Your task to perform on an android device: open chrome privacy settings Image 0: 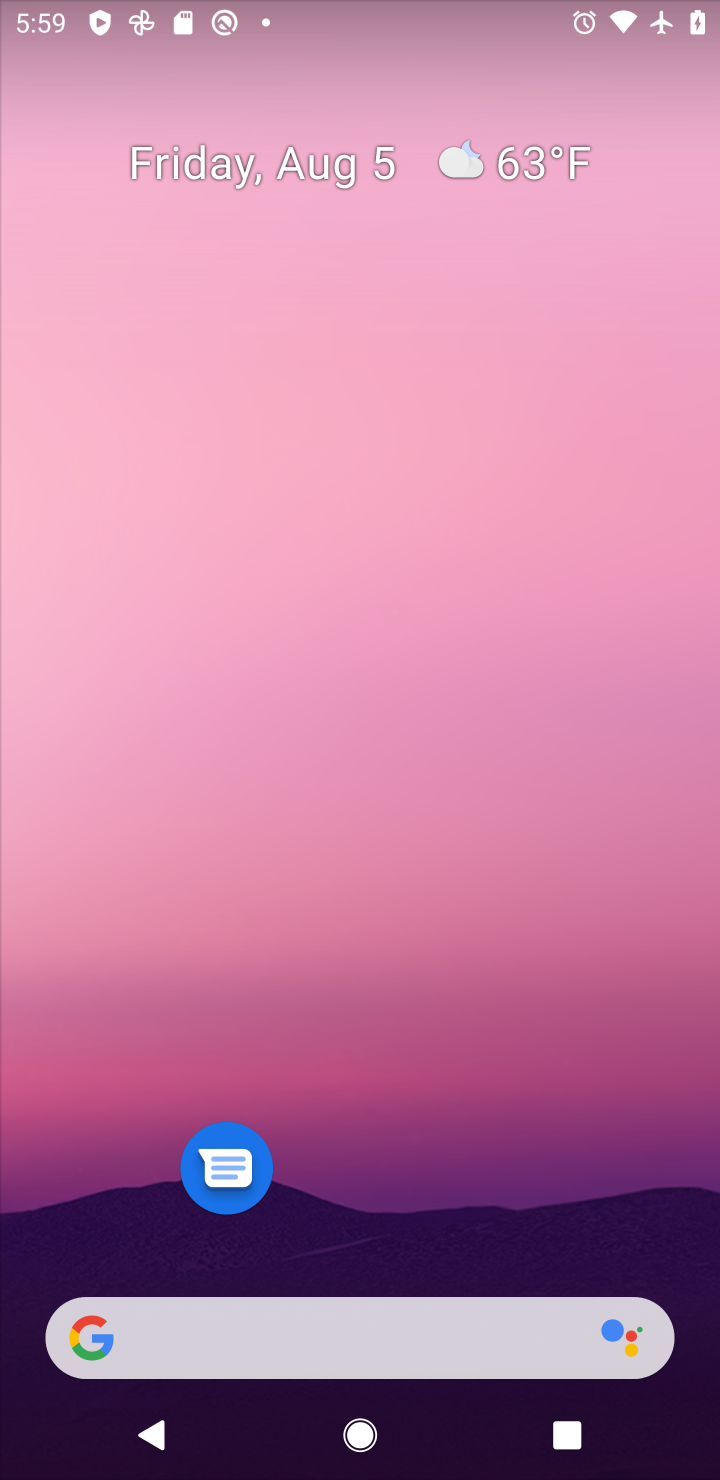
Step 0: press home button
Your task to perform on an android device: open chrome privacy settings Image 1: 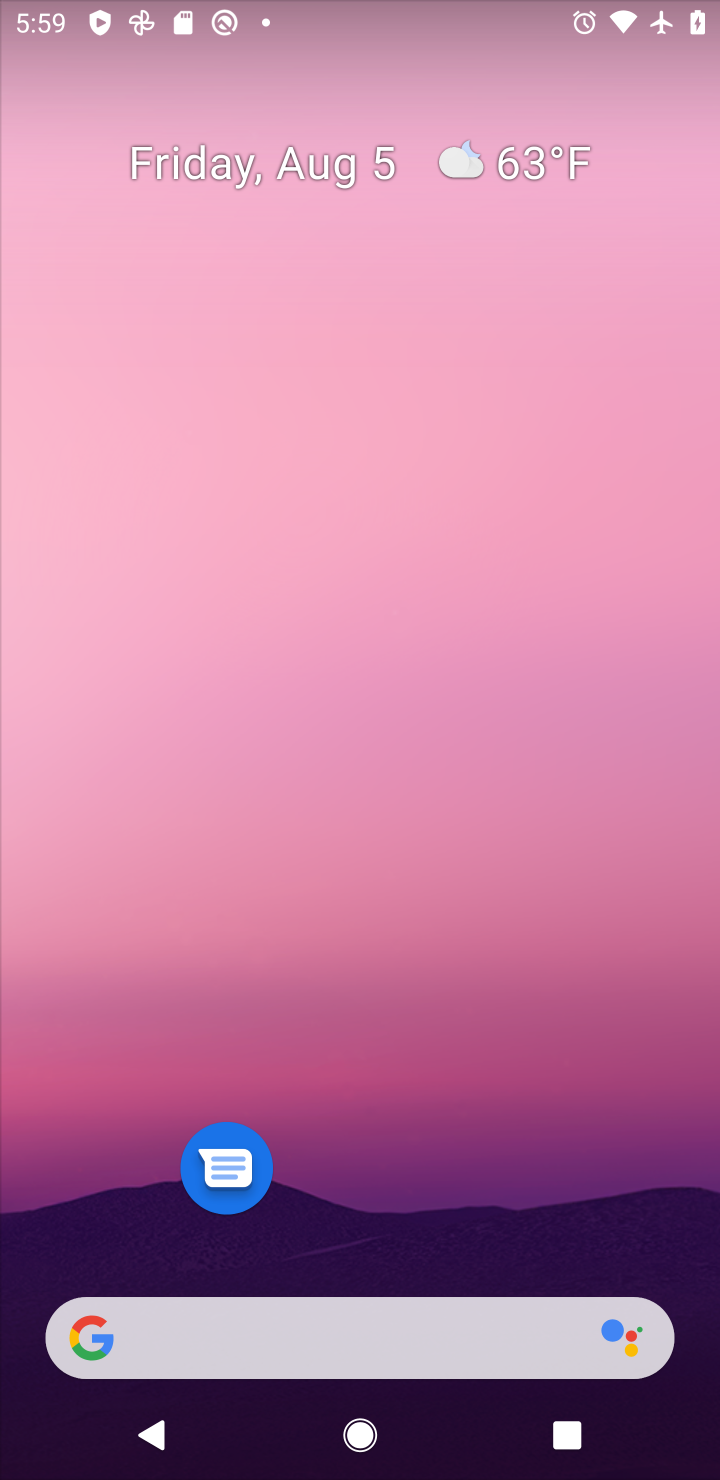
Step 1: drag from (422, 1011) to (425, 8)
Your task to perform on an android device: open chrome privacy settings Image 2: 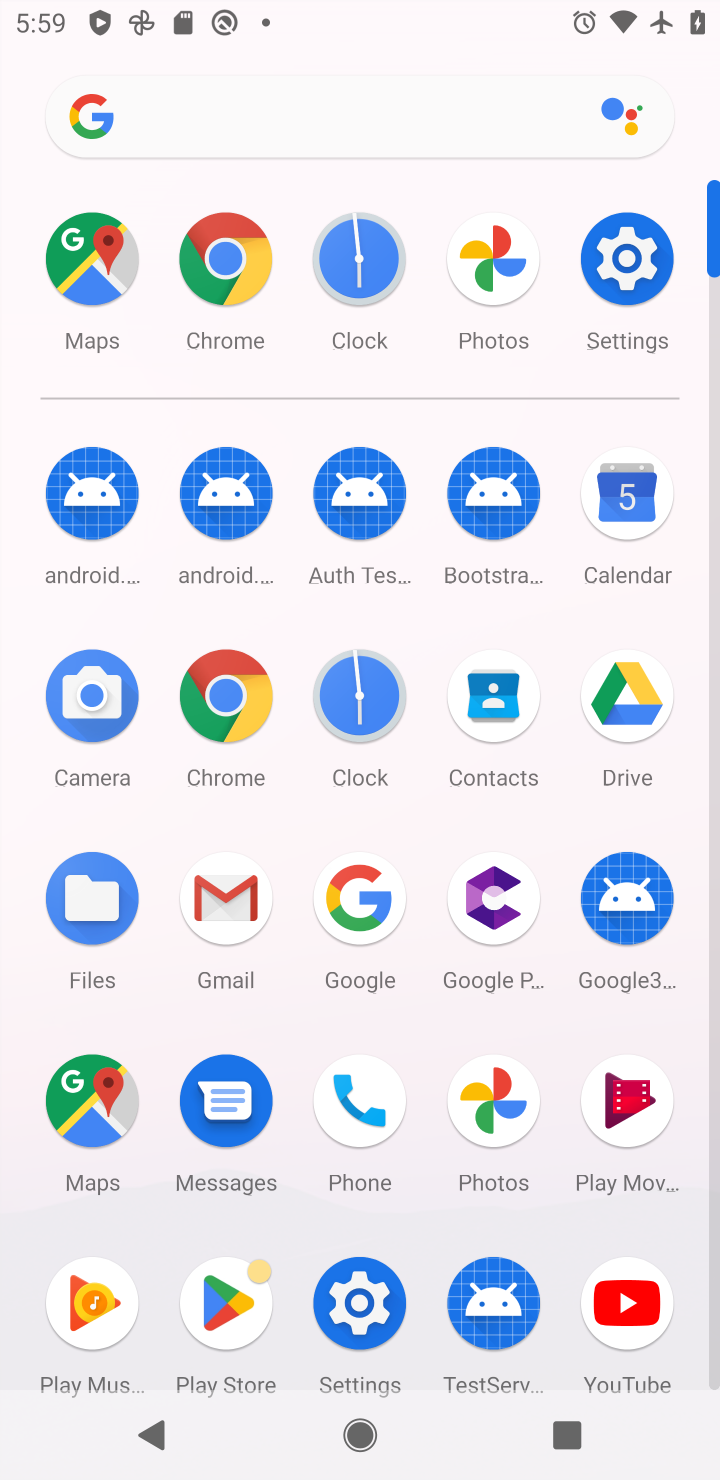
Step 2: click (224, 267)
Your task to perform on an android device: open chrome privacy settings Image 3: 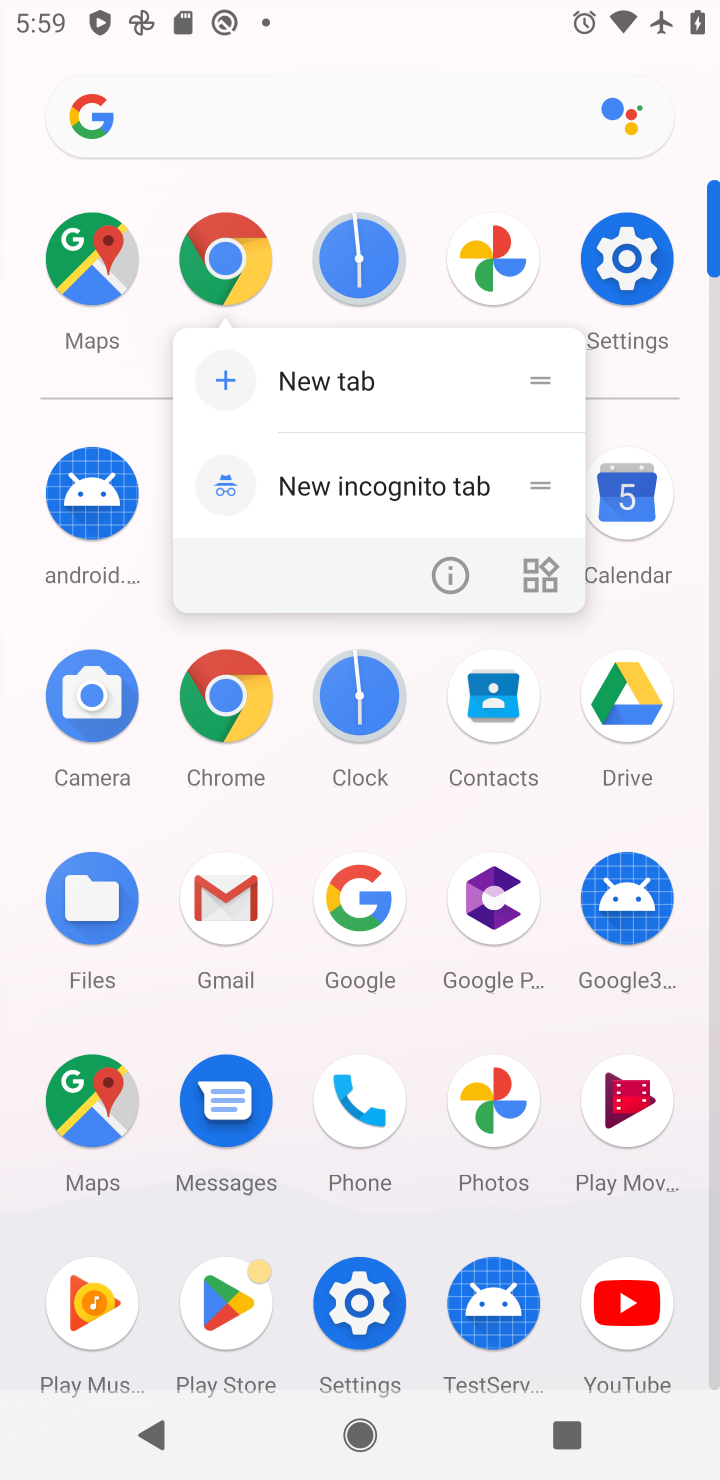
Step 3: click (221, 264)
Your task to perform on an android device: open chrome privacy settings Image 4: 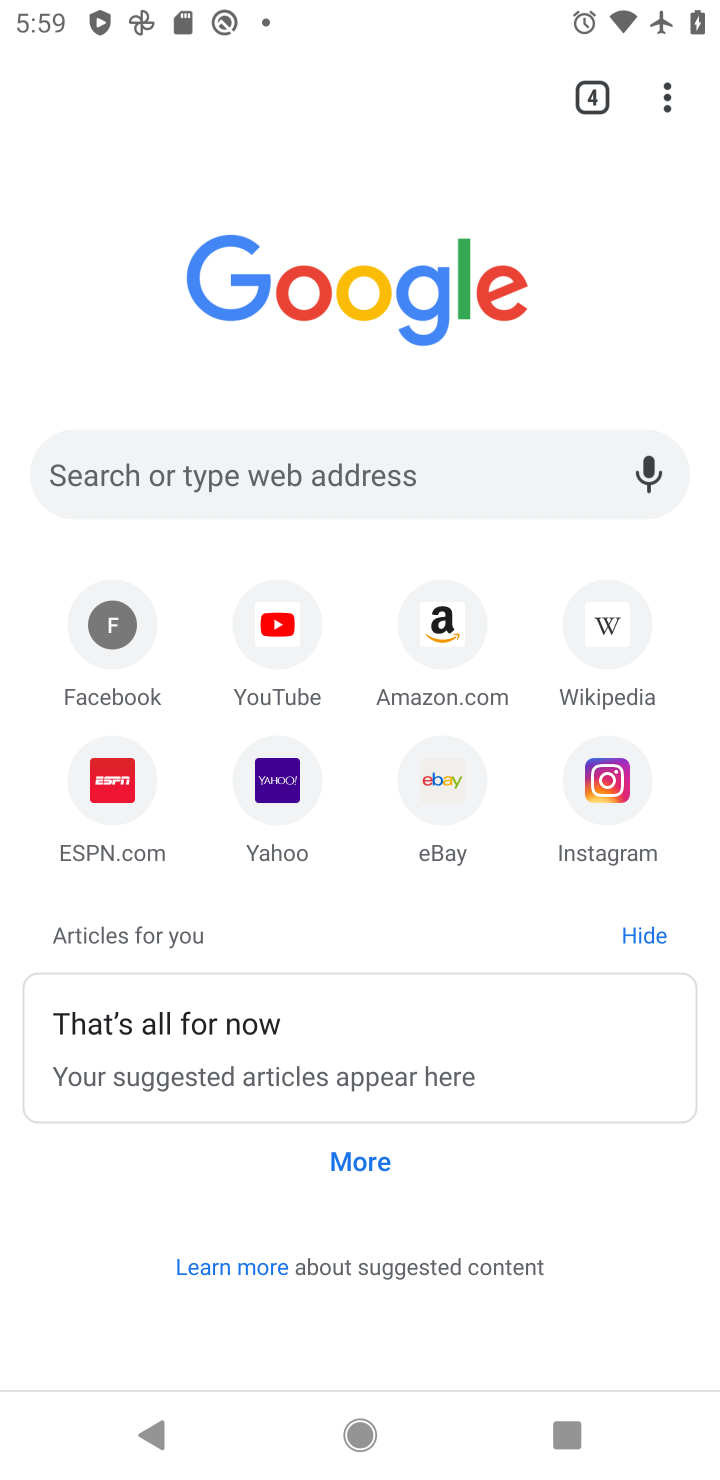
Step 4: drag from (652, 74) to (333, 825)
Your task to perform on an android device: open chrome privacy settings Image 5: 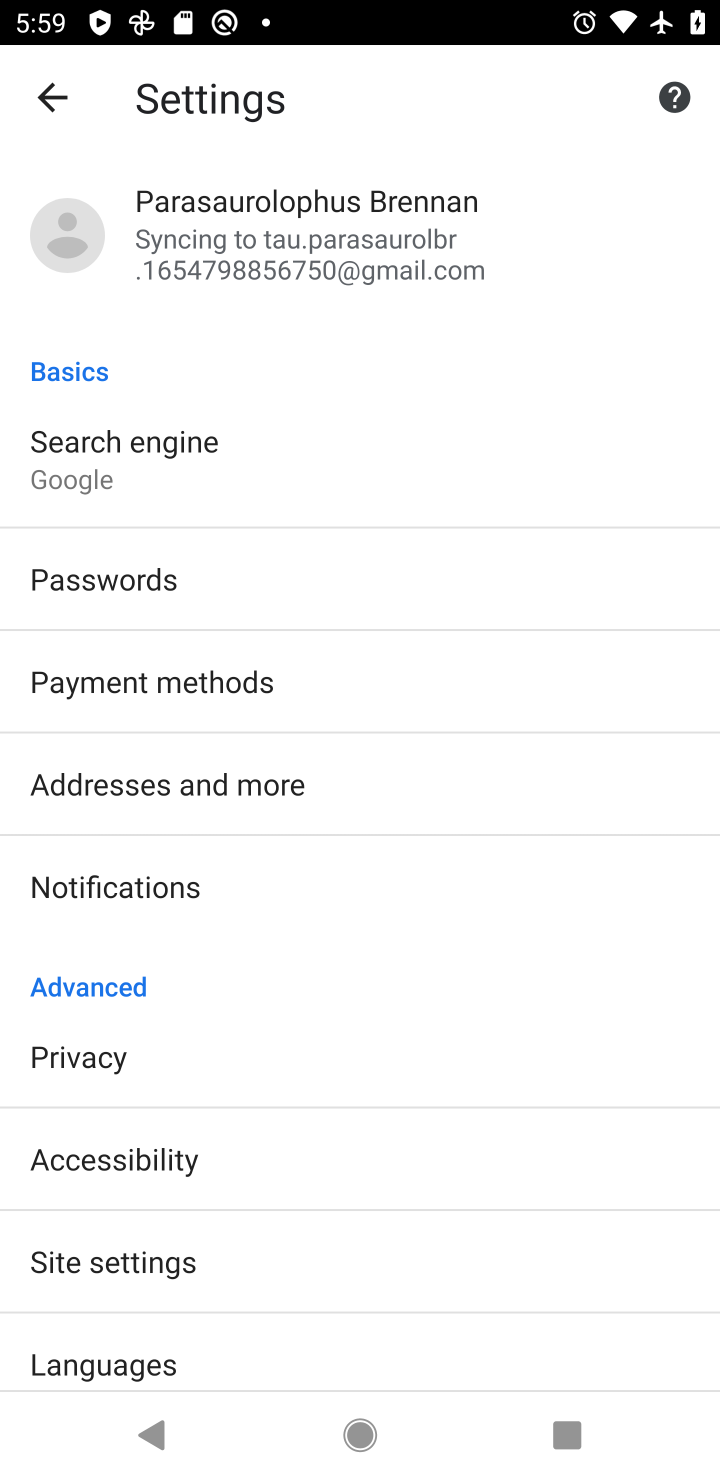
Step 5: click (52, 1046)
Your task to perform on an android device: open chrome privacy settings Image 6: 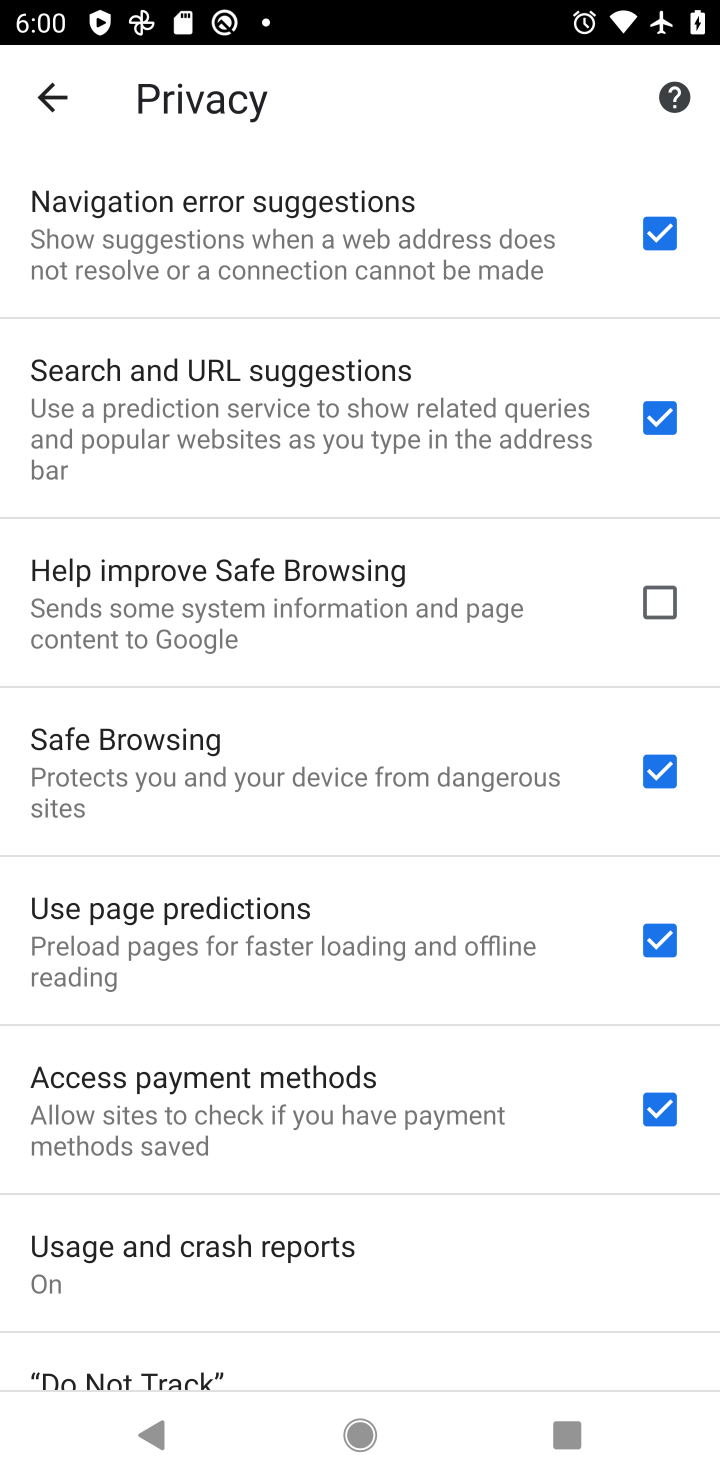
Step 6: task complete